Your task to perform on an android device: install app "Pandora - Music & Podcasts" Image 0: 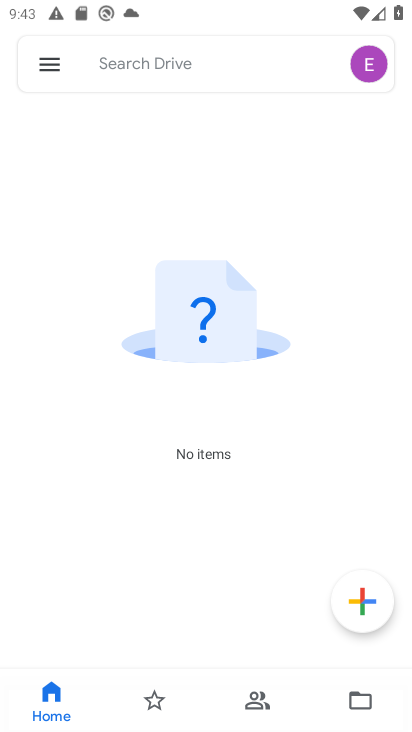
Step 0: press home button
Your task to perform on an android device: install app "Pandora - Music & Podcasts" Image 1: 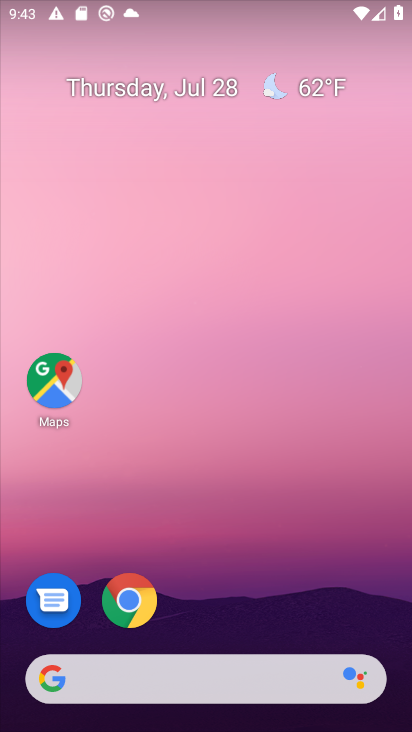
Step 1: drag from (249, 643) to (258, 15)
Your task to perform on an android device: install app "Pandora - Music & Podcasts" Image 2: 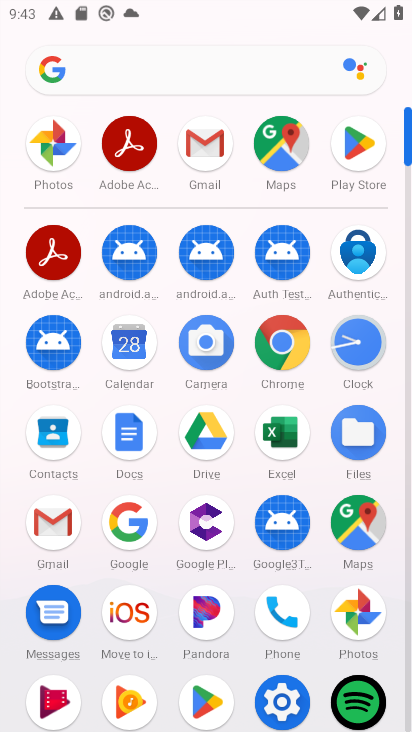
Step 2: click (358, 145)
Your task to perform on an android device: install app "Pandora - Music & Podcasts" Image 3: 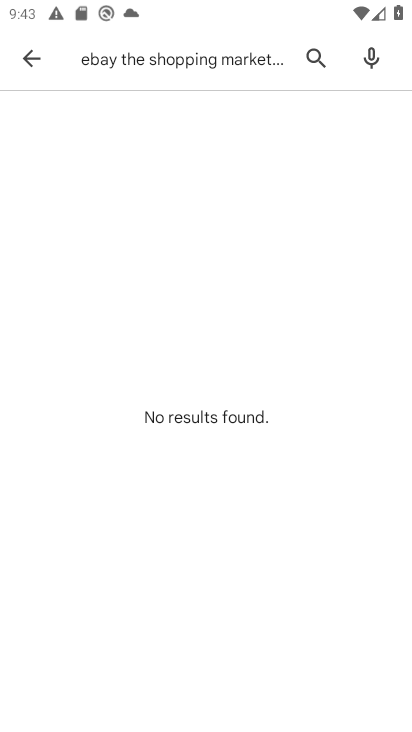
Step 3: click (306, 52)
Your task to perform on an android device: install app "Pandora - Music & Podcasts" Image 4: 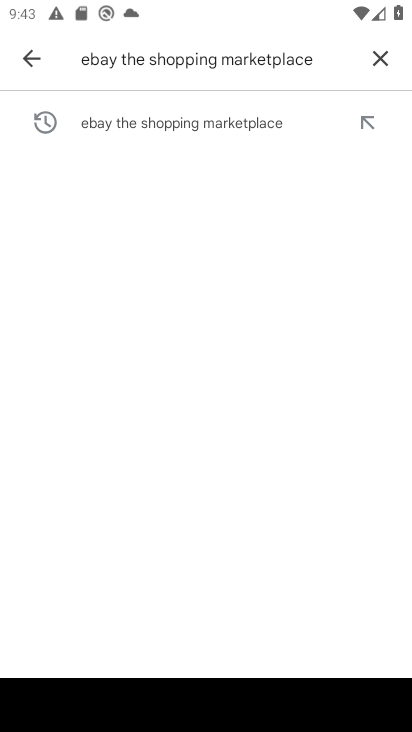
Step 4: click (381, 68)
Your task to perform on an android device: install app "Pandora - Music & Podcasts" Image 5: 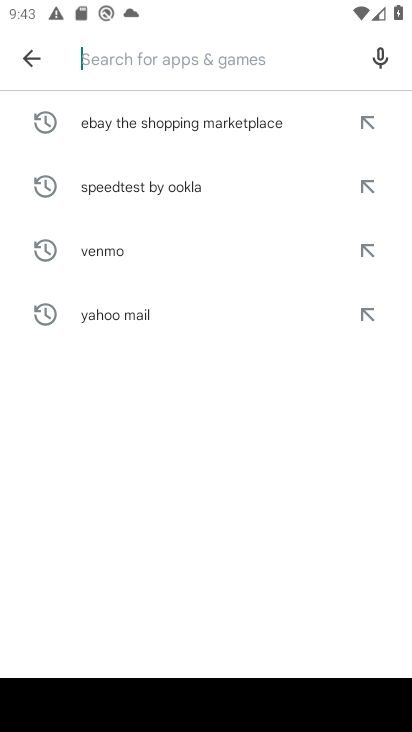
Step 5: click (228, 68)
Your task to perform on an android device: install app "Pandora - Music & Podcasts" Image 6: 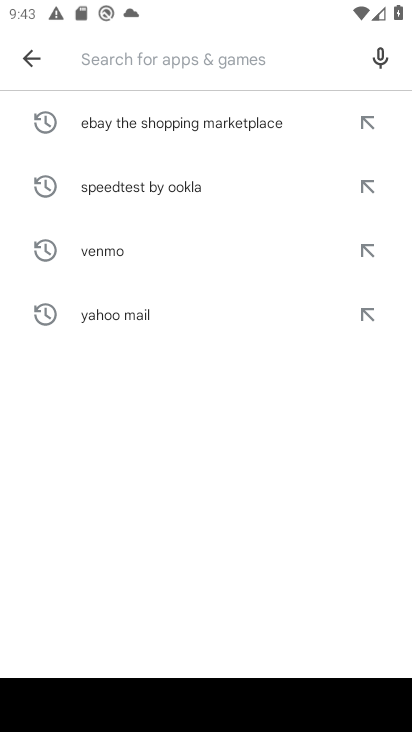
Step 6: type "Pandora - Music & Podcasts"
Your task to perform on an android device: install app "Pandora - Music & Podcasts" Image 7: 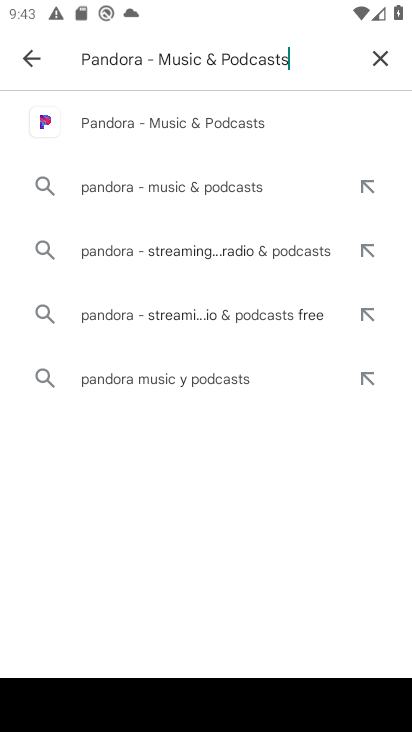
Step 7: click (129, 122)
Your task to perform on an android device: install app "Pandora - Music & Podcasts" Image 8: 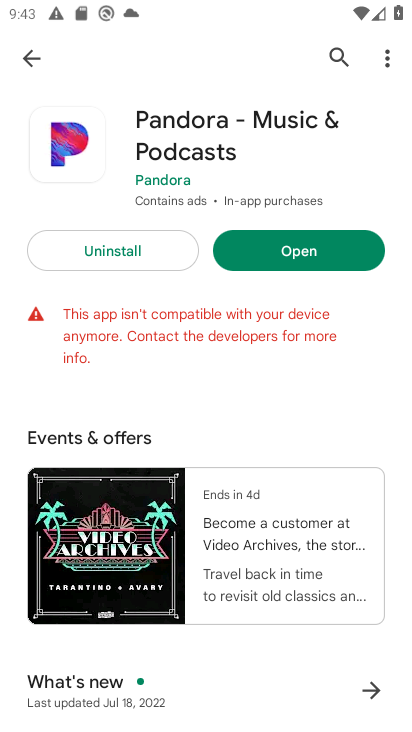
Step 8: task complete